Your task to perform on an android device: Go to Yahoo.com Image 0: 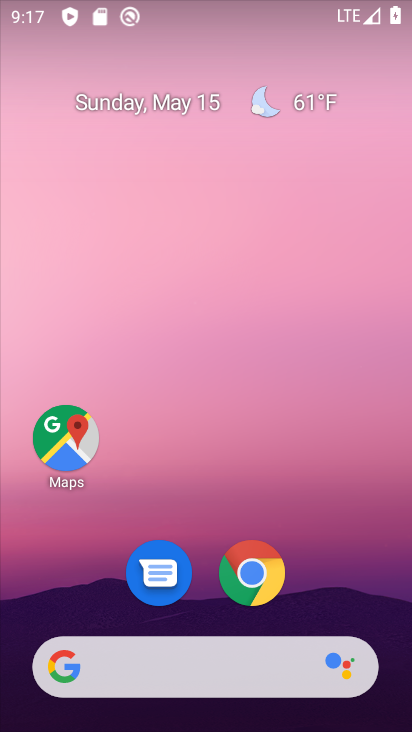
Step 0: click (241, 566)
Your task to perform on an android device: Go to Yahoo.com Image 1: 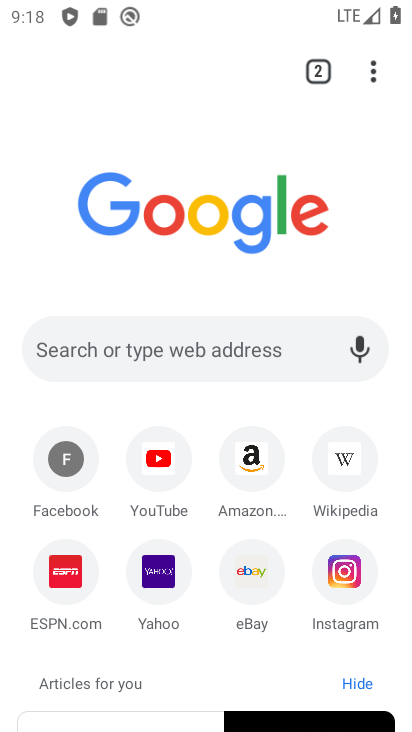
Step 1: click (152, 582)
Your task to perform on an android device: Go to Yahoo.com Image 2: 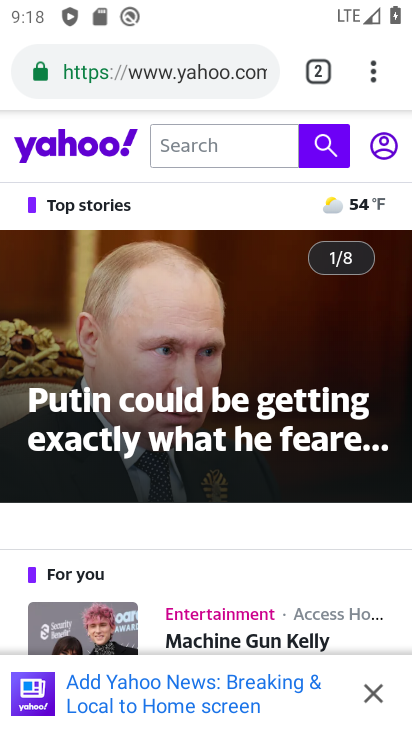
Step 2: task complete